Your task to perform on an android device: Open Amazon Image 0: 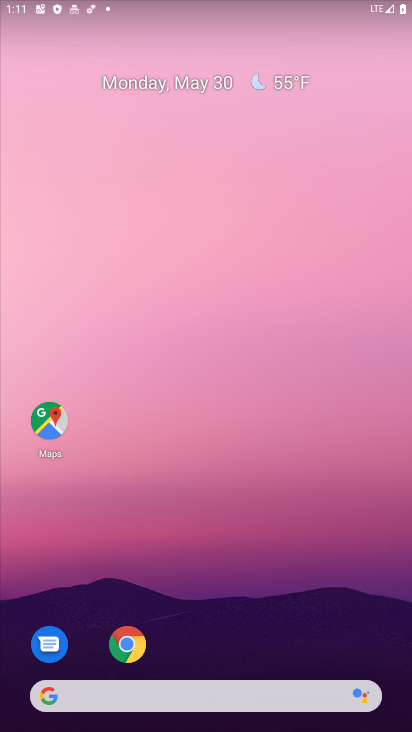
Step 0: click (121, 650)
Your task to perform on an android device: Open Amazon Image 1: 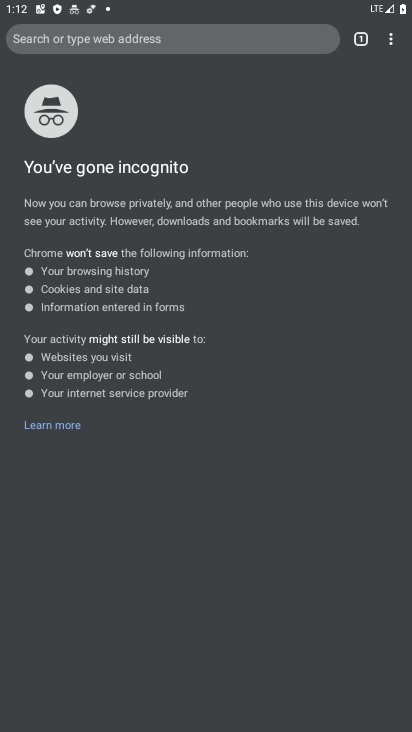
Step 1: click (170, 44)
Your task to perform on an android device: Open Amazon Image 2: 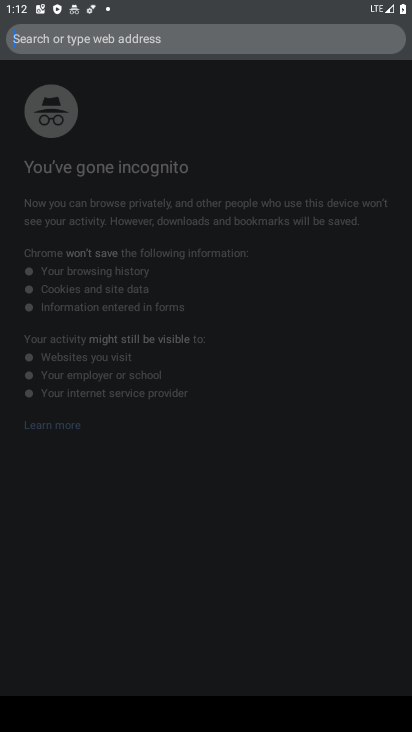
Step 2: type "ama"
Your task to perform on an android device: Open Amazon Image 3: 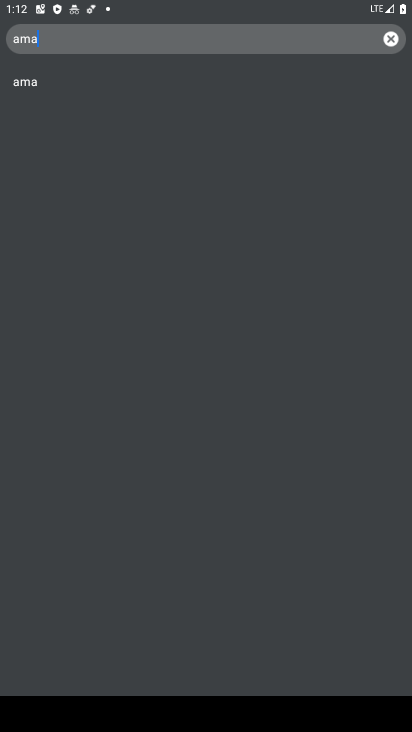
Step 3: task complete